Your task to perform on an android device: Is it going to rain this weekend? Image 0: 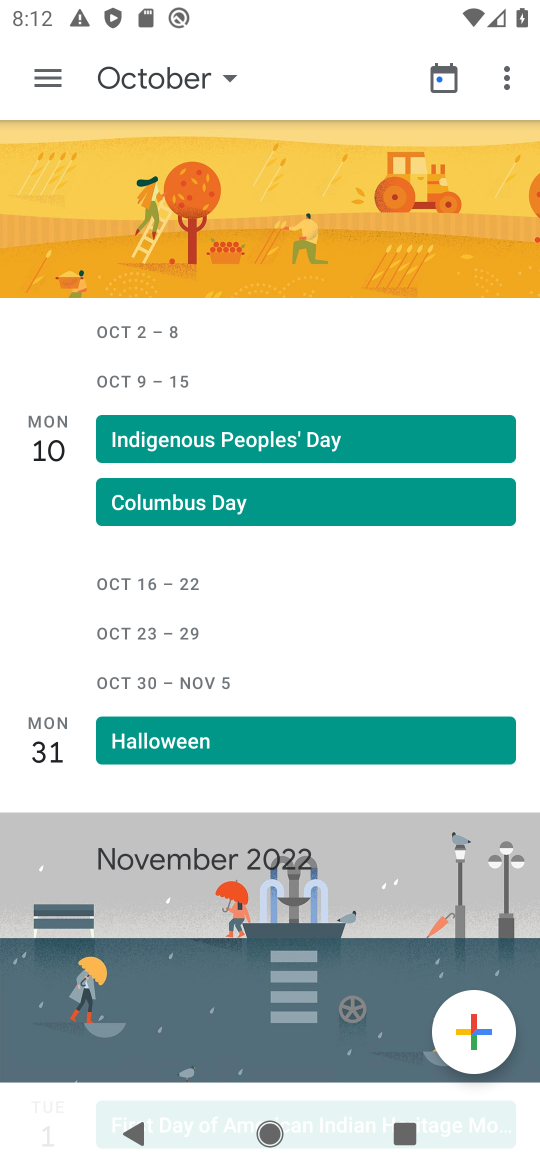
Step 0: press home button
Your task to perform on an android device: Is it going to rain this weekend? Image 1: 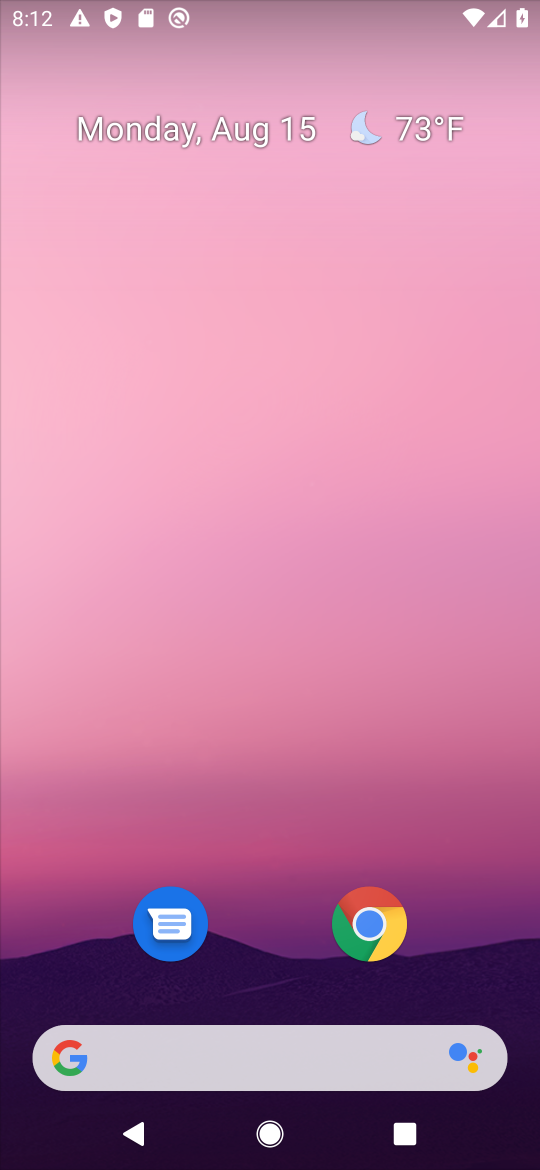
Step 1: click (409, 134)
Your task to perform on an android device: Is it going to rain this weekend? Image 2: 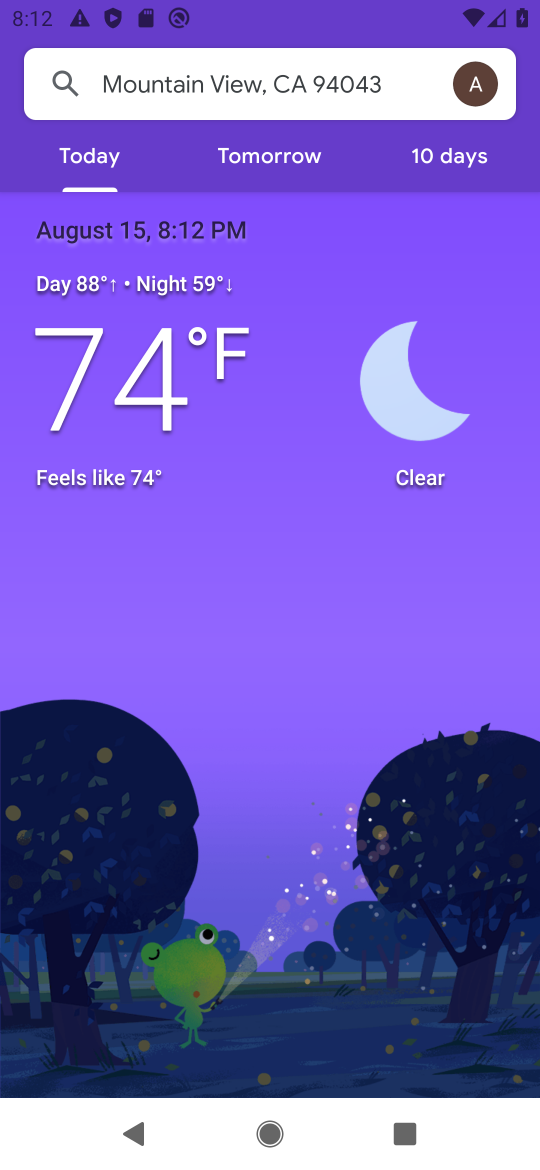
Step 2: click (444, 163)
Your task to perform on an android device: Is it going to rain this weekend? Image 3: 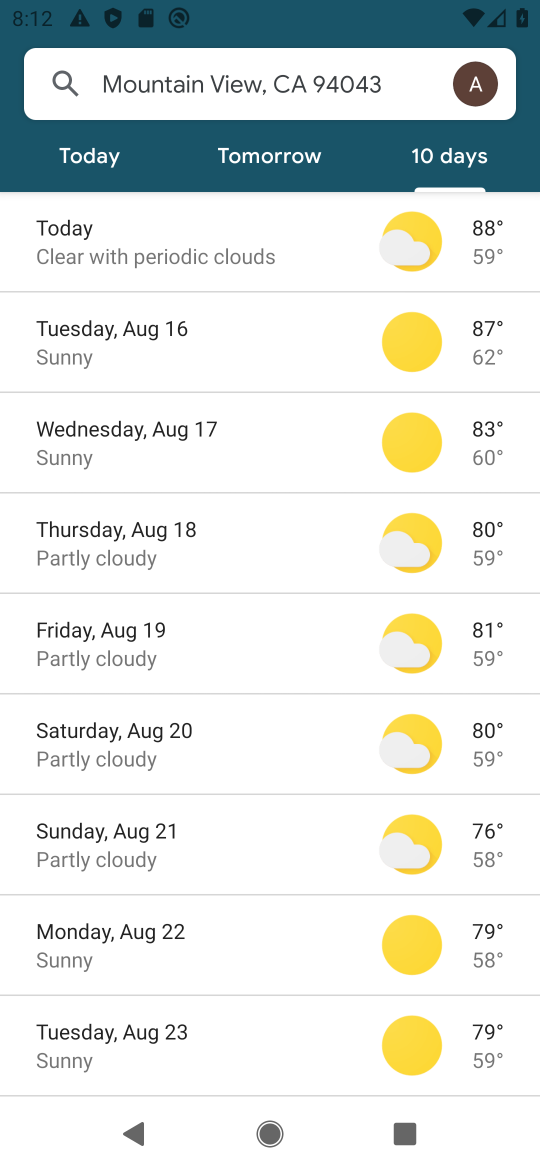
Step 3: task complete